Your task to perform on an android device: visit the assistant section in the google photos Image 0: 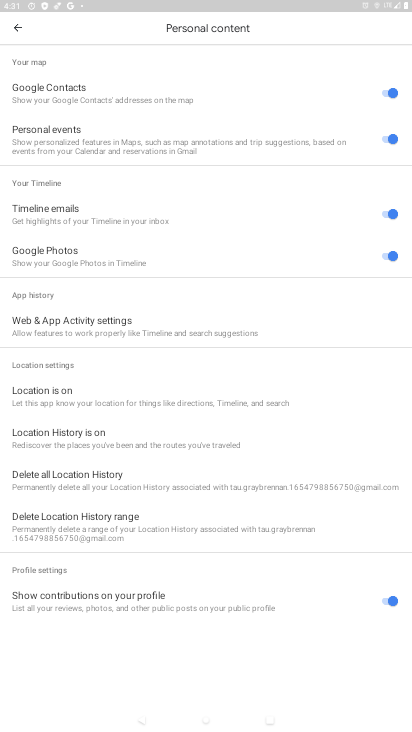
Step 0: press home button
Your task to perform on an android device: visit the assistant section in the google photos Image 1: 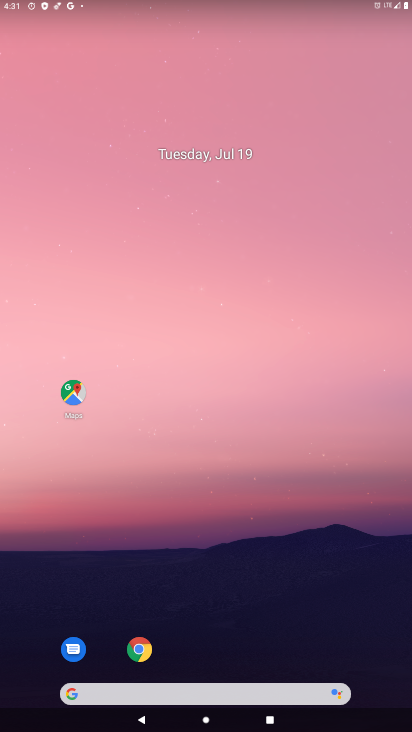
Step 1: drag from (247, 596) to (151, 138)
Your task to perform on an android device: visit the assistant section in the google photos Image 2: 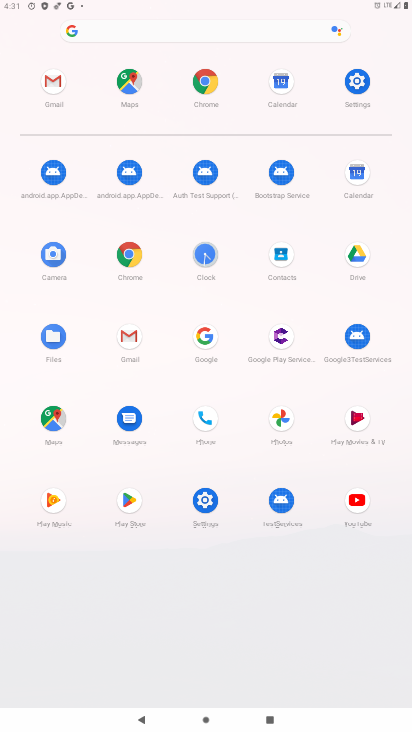
Step 2: click (276, 420)
Your task to perform on an android device: visit the assistant section in the google photos Image 3: 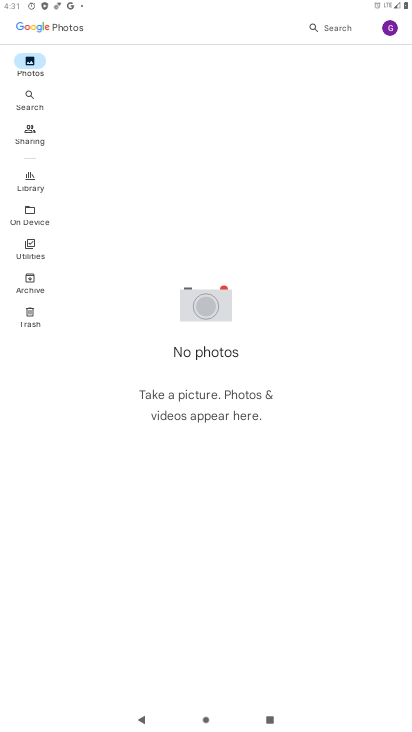
Step 3: click (396, 20)
Your task to perform on an android device: visit the assistant section in the google photos Image 4: 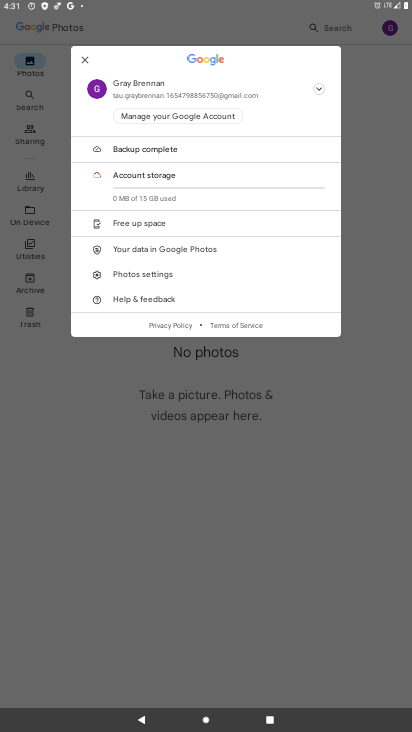
Step 4: task complete